Your task to perform on an android device: Empty the shopping cart on costco. Add "razer thresher" to the cart on costco, then select checkout. Image 0: 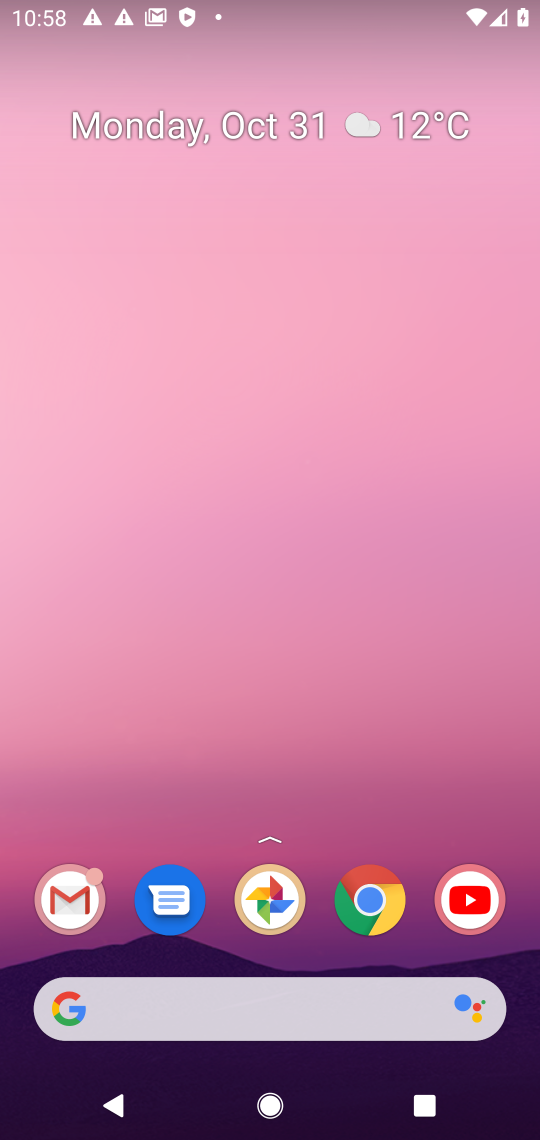
Step 0: click (189, 1019)
Your task to perform on an android device: Empty the shopping cart on costco. Add "razer thresher" to the cart on costco, then select checkout. Image 1: 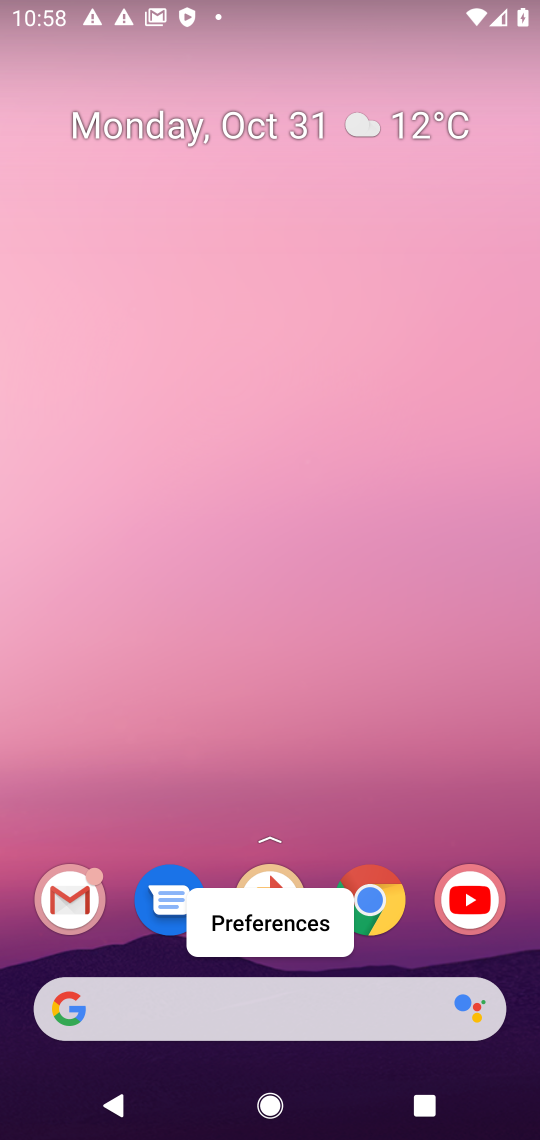
Step 1: click (176, 1016)
Your task to perform on an android device: Empty the shopping cart on costco. Add "razer thresher" to the cart on costco, then select checkout. Image 2: 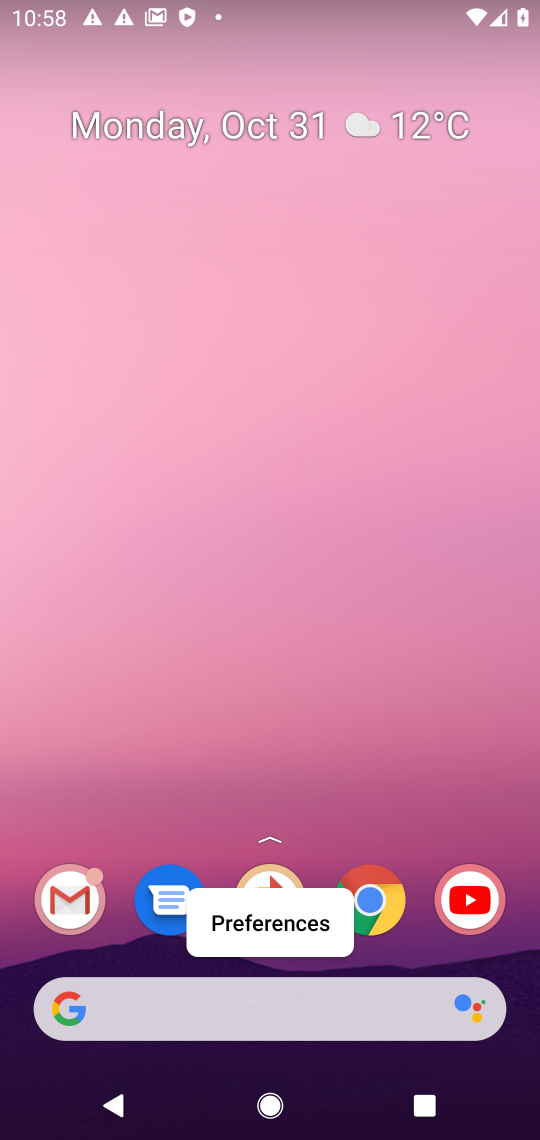
Step 2: click (175, 1006)
Your task to perform on an android device: Empty the shopping cart on costco. Add "razer thresher" to the cart on costco, then select checkout. Image 3: 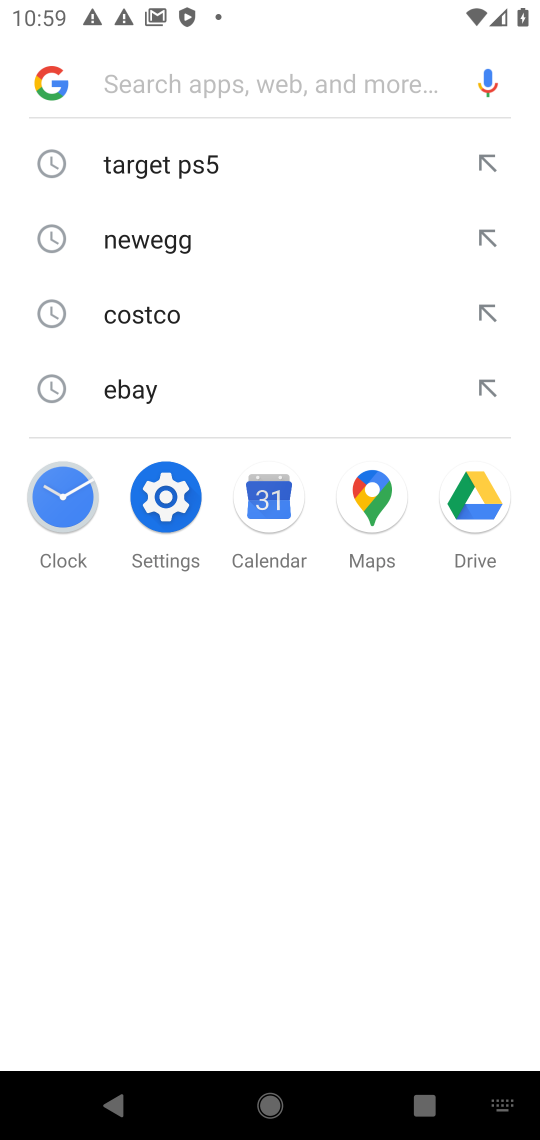
Step 3: type " costco"
Your task to perform on an android device: Empty the shopping cart on costco. Add "razer thresher" to the cart on costco, then select checkout. Image 4: 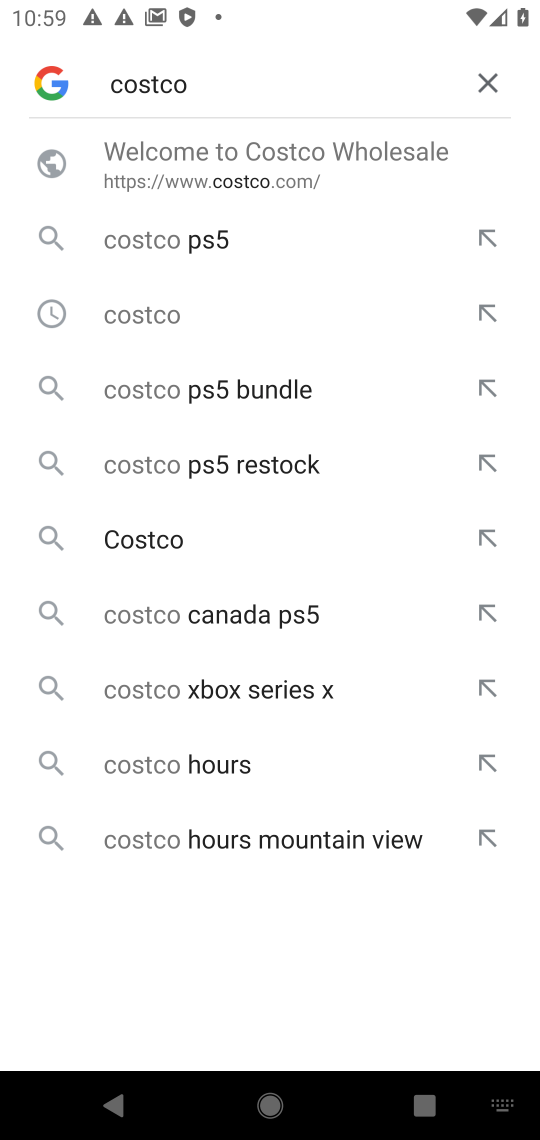
Step 4: type ""
Your task to perform on an android device: Empty the shopping cart on costco. Add "razer thresher" to the cart on costco, then select checkout. Image 5: 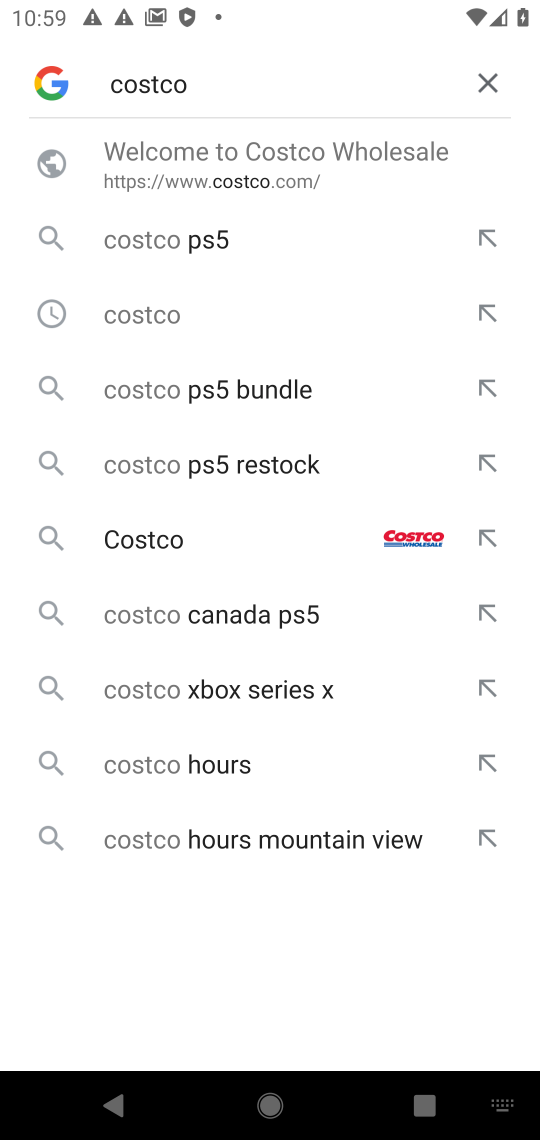
Step 5: click (173, 316)
Your task to perform on an android device: Empty the shopping cart on costco. Add "razer thresher" to the cart on costco, then select checkout. Image 6: 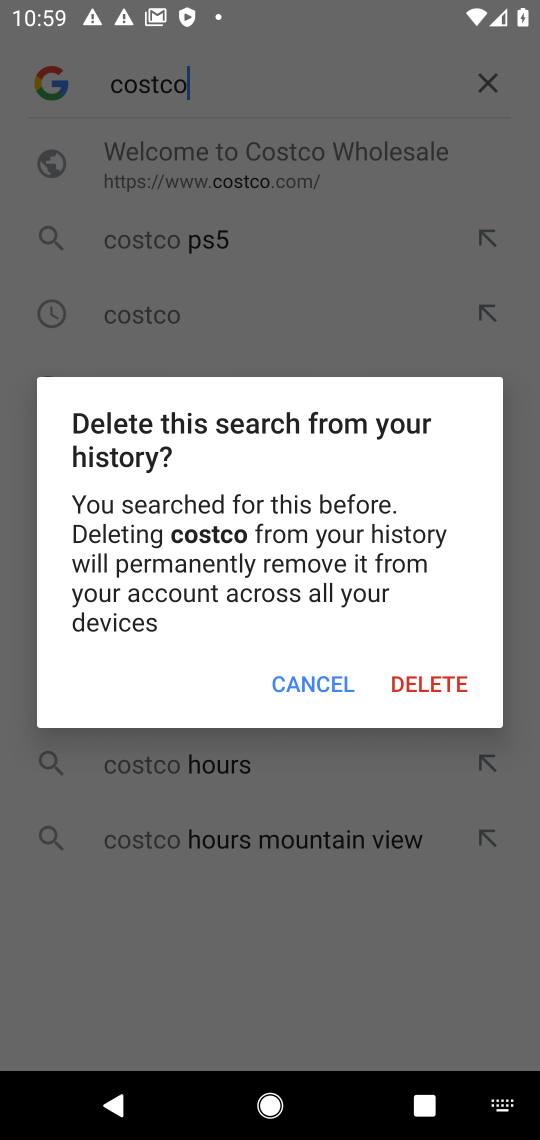
Step 6: click (301, 672)
Your task to perform on an android device: Empty the shopping cart on costco. Add "razer thresher" to the cart on costco, then select checkout. Image 7: 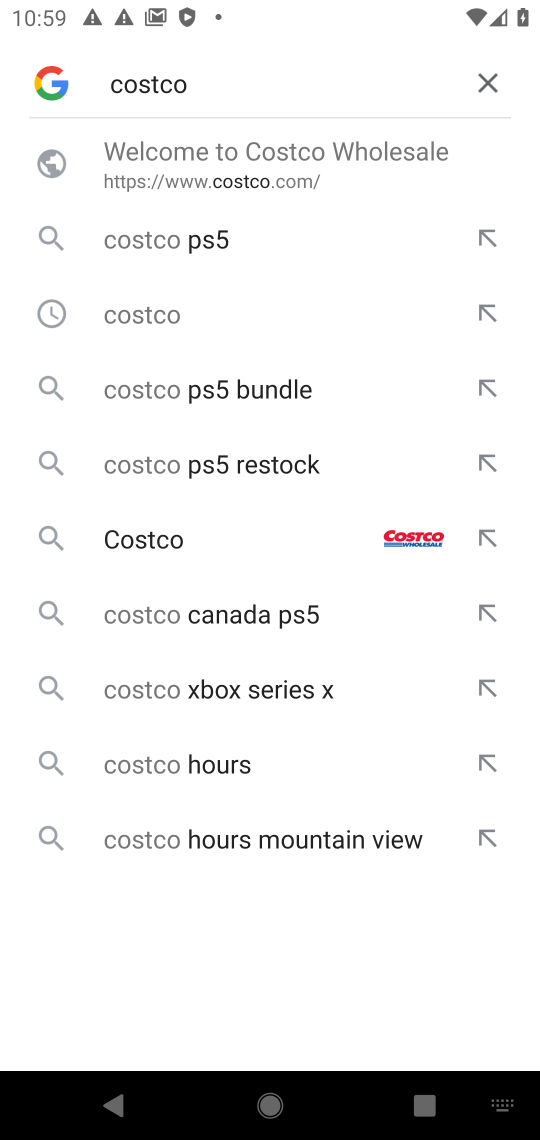
Step 7: click (306, 683)
Your task to perform on an android device: Empty the shopping cart on costco. Add "razer thresher" to the cart on costco, then select checkout. Image 8: 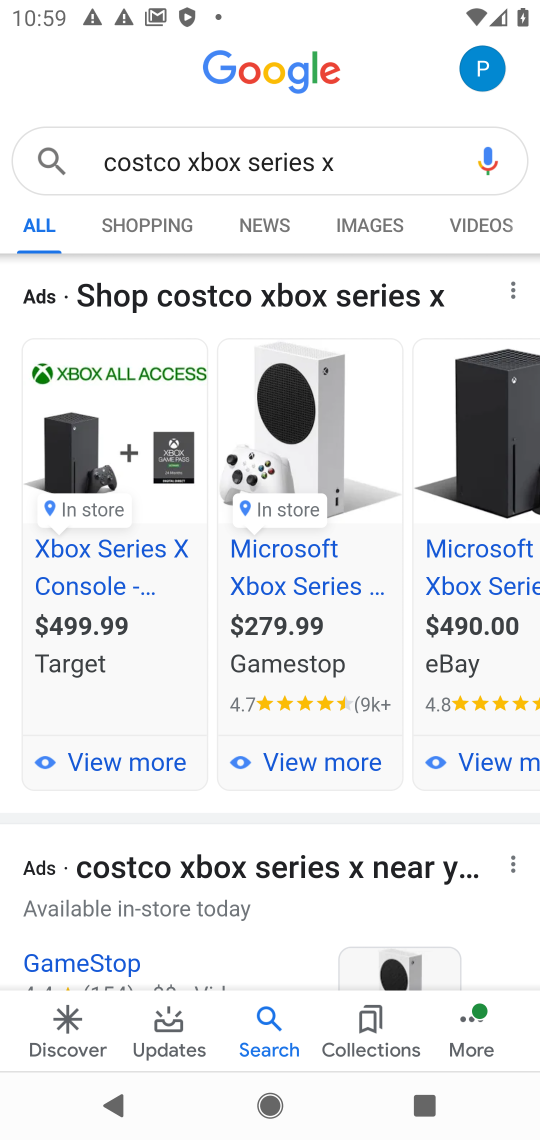
Step 8: drag from (255, 482) to (255, 266)
Your task to perform on an android device: Empty the shopping cart on costco. Add "razer thresher" to the cart on costco, then select checkout. Image 9: 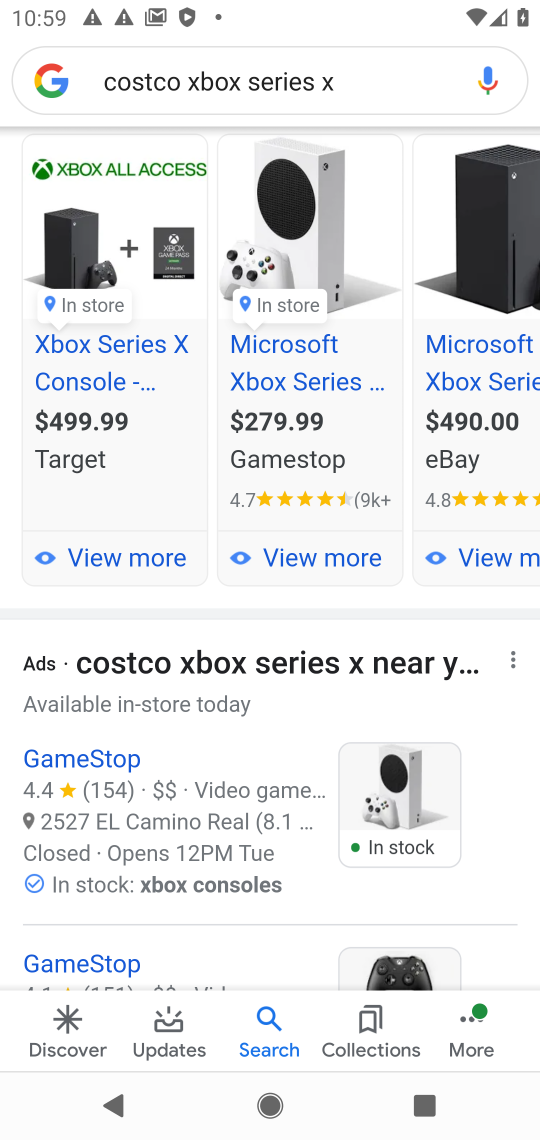
Step 9: drag from (234, 738) to (284, 212)
Your task to perform on an android device: Empty the shopping cart on costco. Add "razer thresher" to the cart on costco, then select checkout. Image 10: 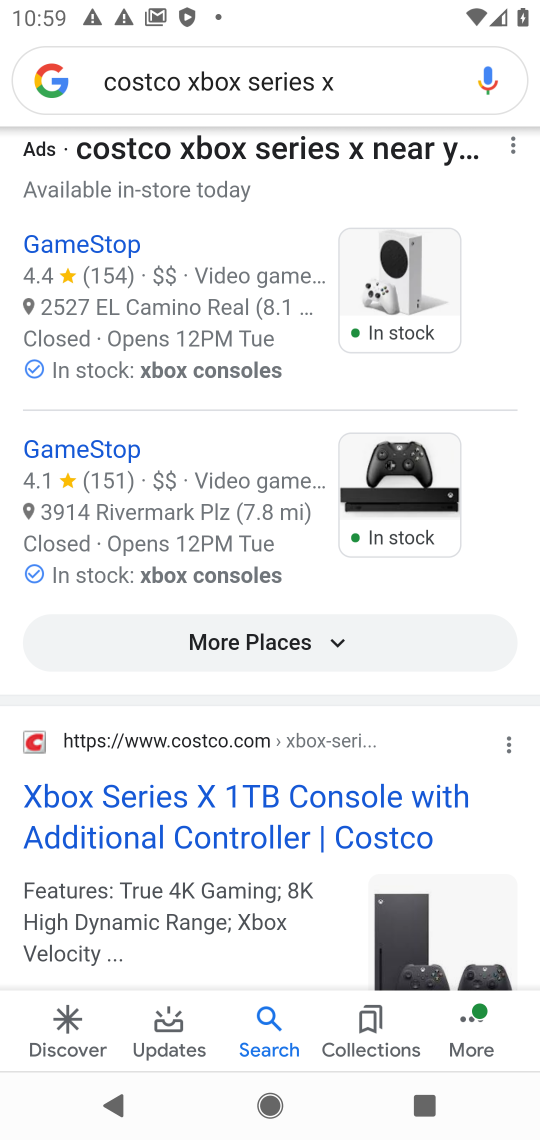
Step 10: click (198, 769)
Your task to perform on an android device: Empty the shopping cart on costco. Add "razer thresher" to the cart on costco, then select checkout. Image 11: 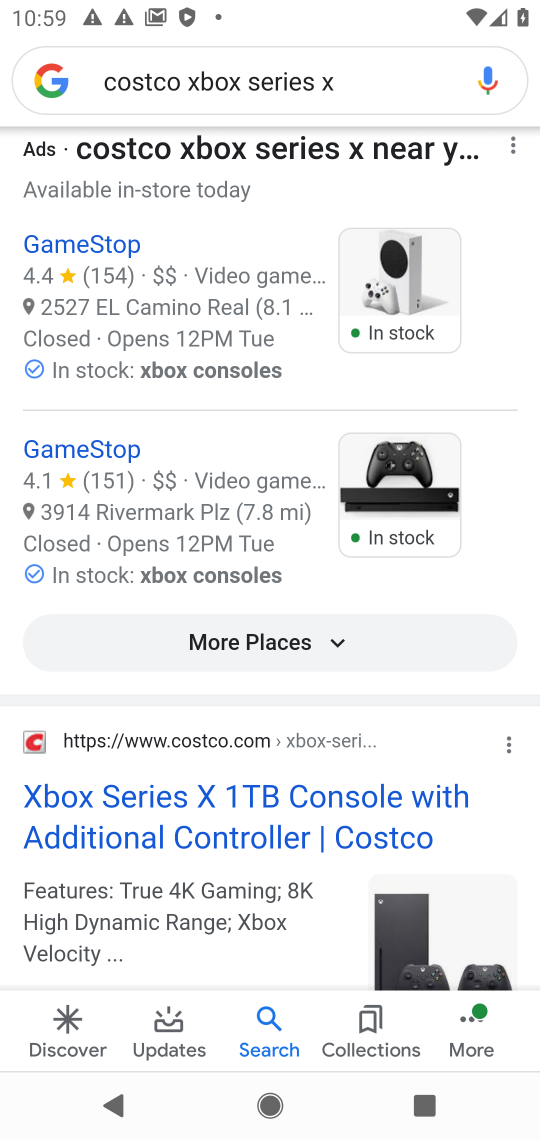
Step 11: click (205, 748)
Your task to perform on an android device: Empty the shopping cart on costco. Add "razer thresher" to the cart on costco, then select checkout. Image 12: 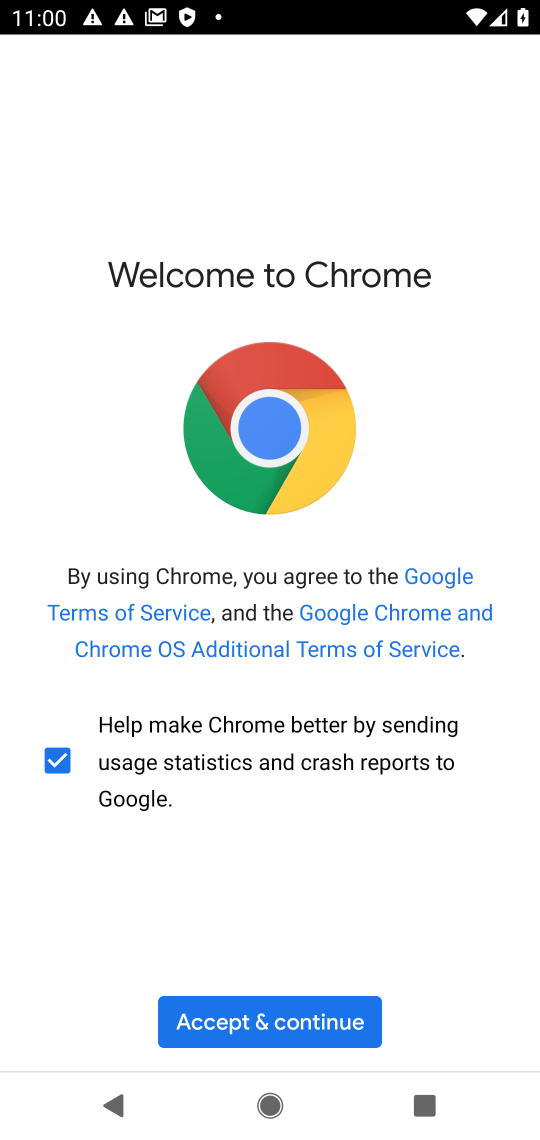
Step 12: click (241, 1015)
Your task to perform on an android device: Empty the shopping cart on costco. Add "razer thresher" to the cart on costco, then select checkout. Image 13: 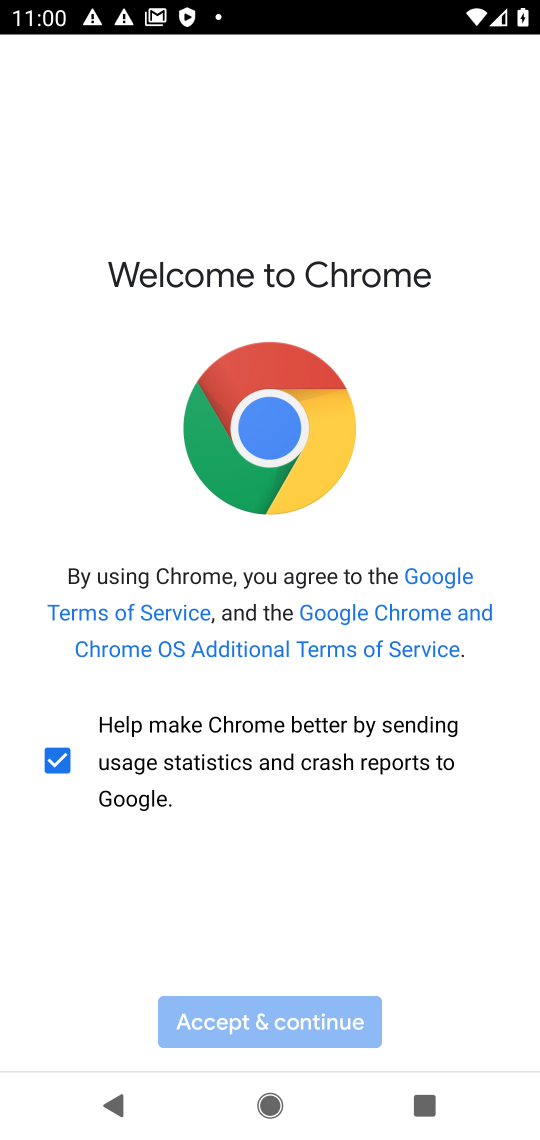
Step 13: click (239, 1016)
Your task to perform on an android device: Empty the shopping cart on costco. Add "razer thresher" to the cart on costco, then select checkout. Image 14: 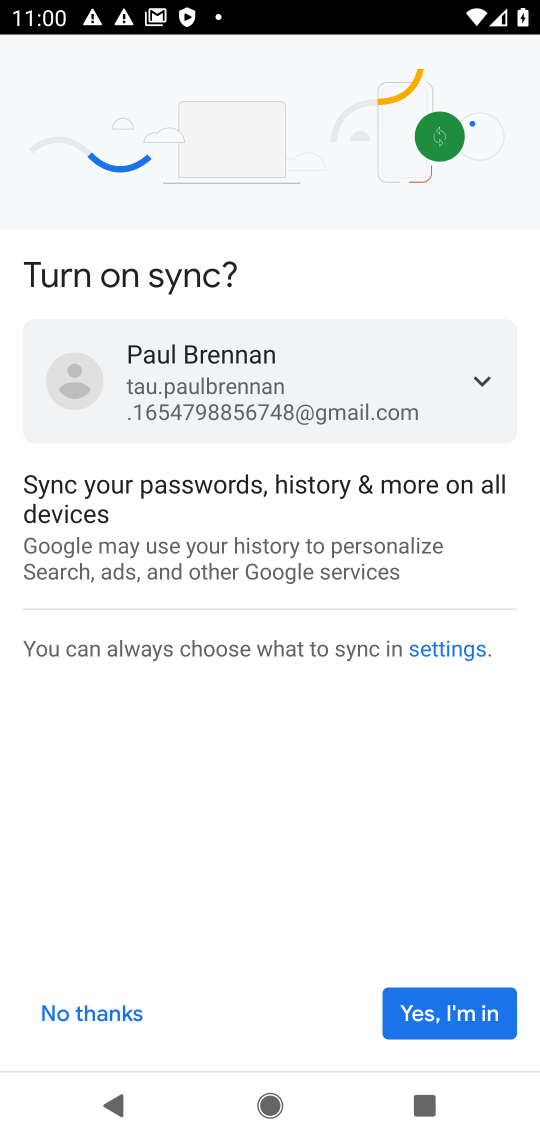
Step 14: click (401, 1027)
Your task to perform on an android device: Empty the shopping cart on costco. Add "razer thresher" to the cart on costco, then select checkout. Image 15: 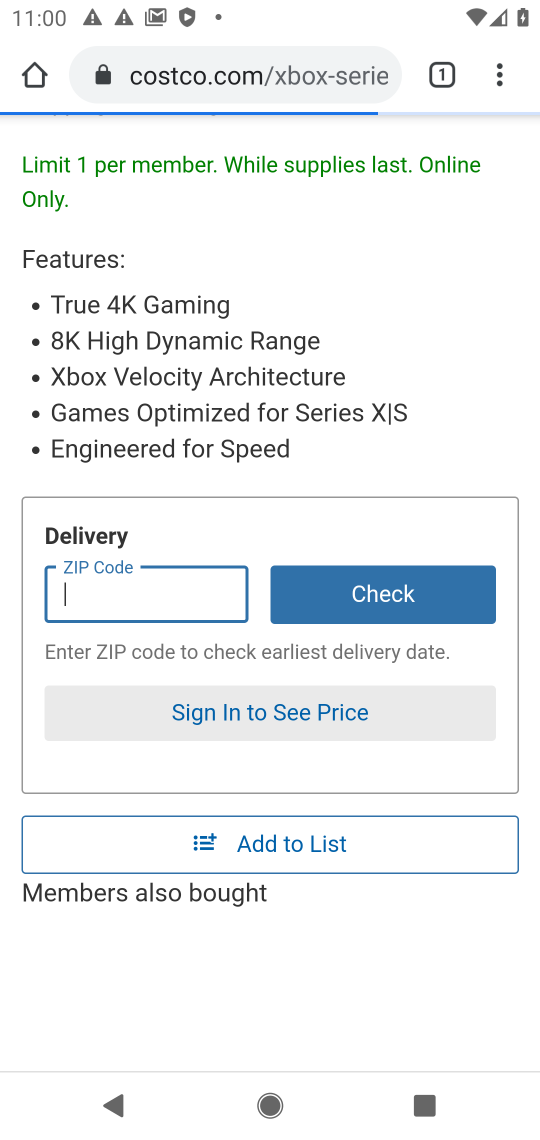
Step 15: click (223, 229)
Your task to perform on an android device: Empty the shopping cart on costco. Add "razer thresher" to the cart on costco, then select checkout. Image 16: 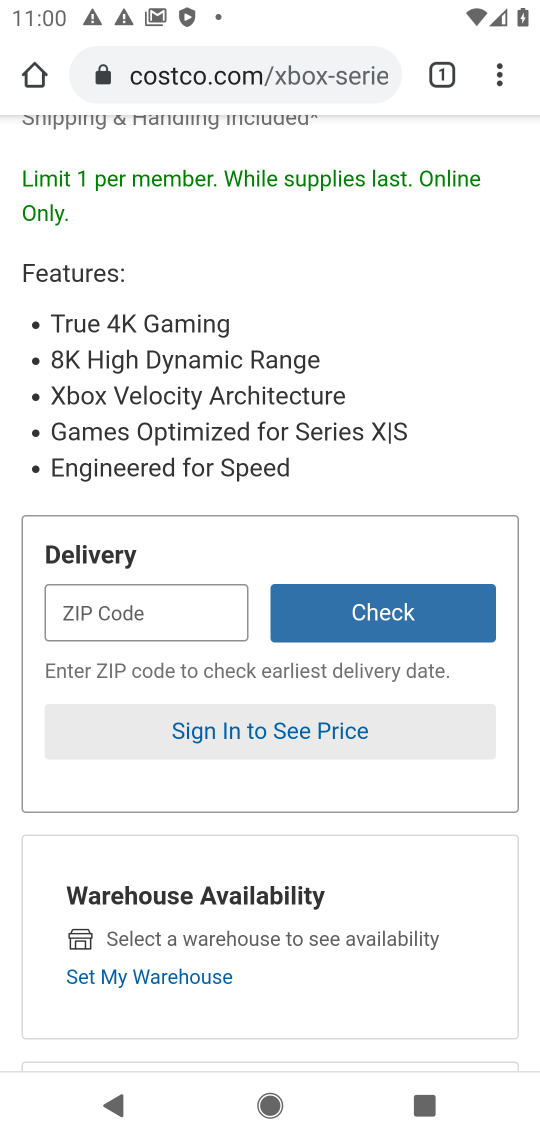
Step 16: drag from (345, 299) to (409, 951)
Your task to perform on an android device: Empty the shopping cart on costco. Add "razer thresher" to the cart on costco, then select checkout. Image 17: 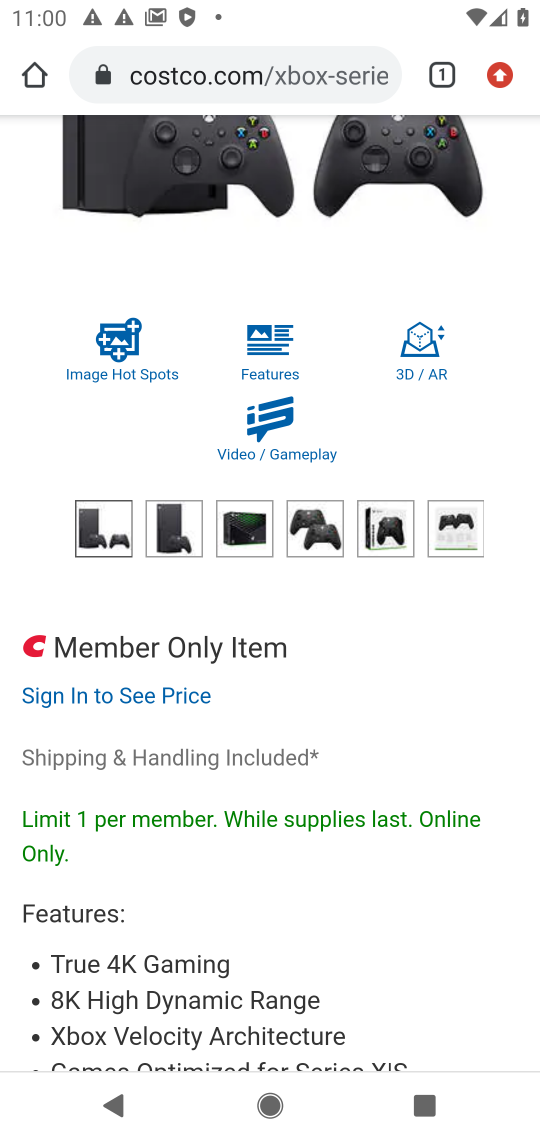
Step 17: drag from (301, 370) to (406, 1014)
Your task to perform on an android device: Empty the shopping cart on costco. Add "razer thresher" to the cart on costco, then select checkout. Image 18: 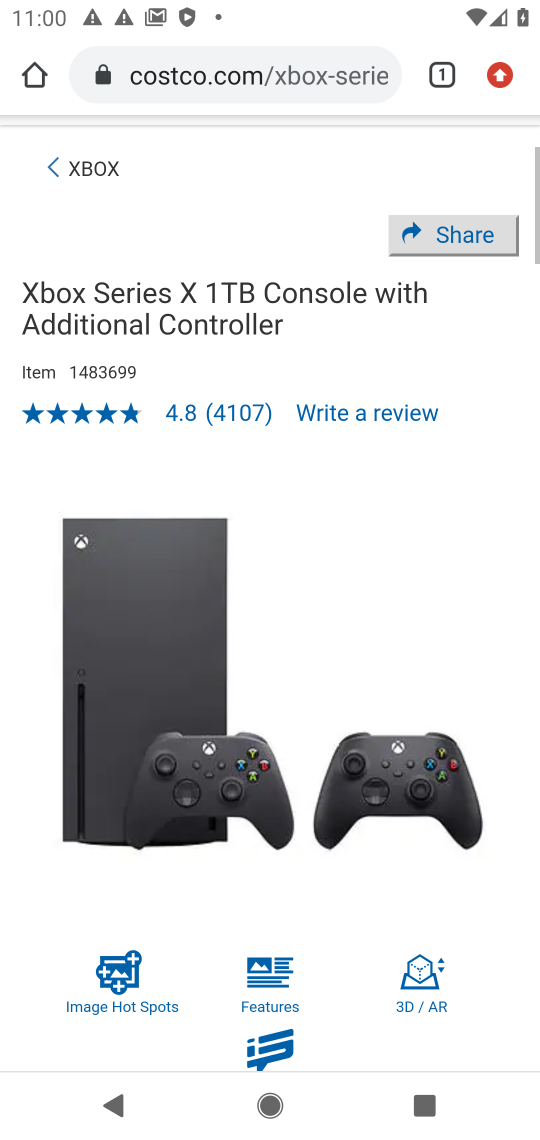
Step 18: drag from (318, 272) to (353, 646)
Your task to perform on an android device: Empty the shopping cart on costco. Add "razer thresher" to the cart on costco, then select checkout. Image 19: 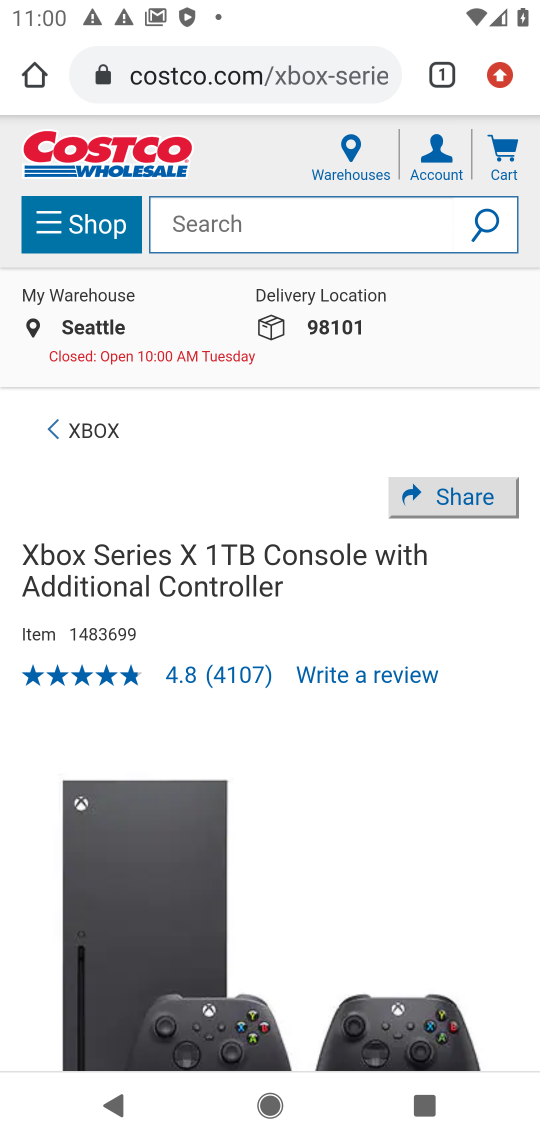
Step 19: click (258, 212)
Your task to perform on an android device: Empty the shopping cart on costco. Add "razer thresher" to the cart on costco, then select checkout. Image 20: 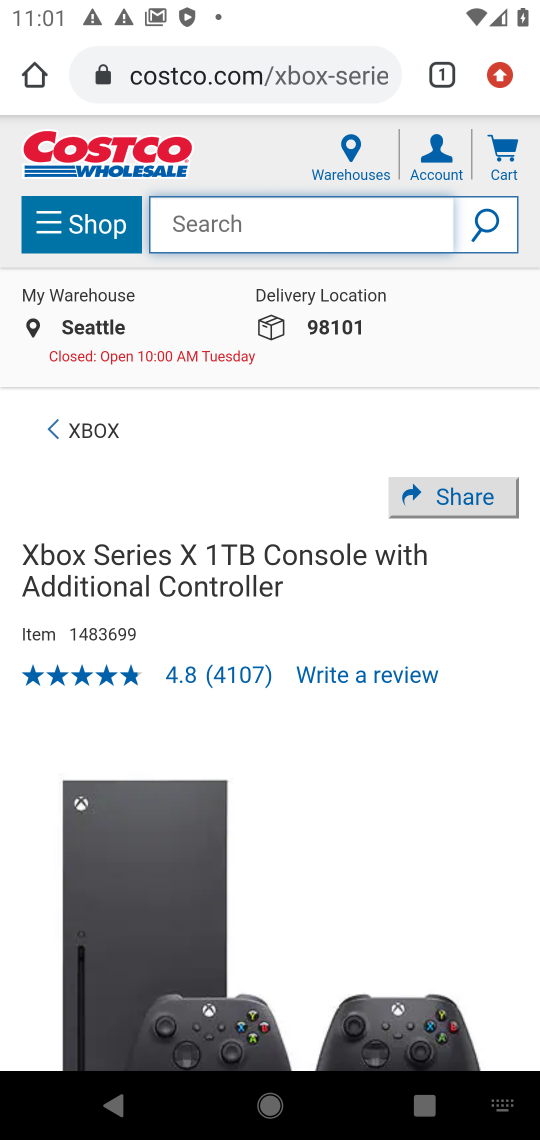
Step 20: type "razer thresher"
Your task to perform on an android device: Empty the shopping cart on costco. Add "razer thresher" to the cart on costco, then select checkout. Image 21: 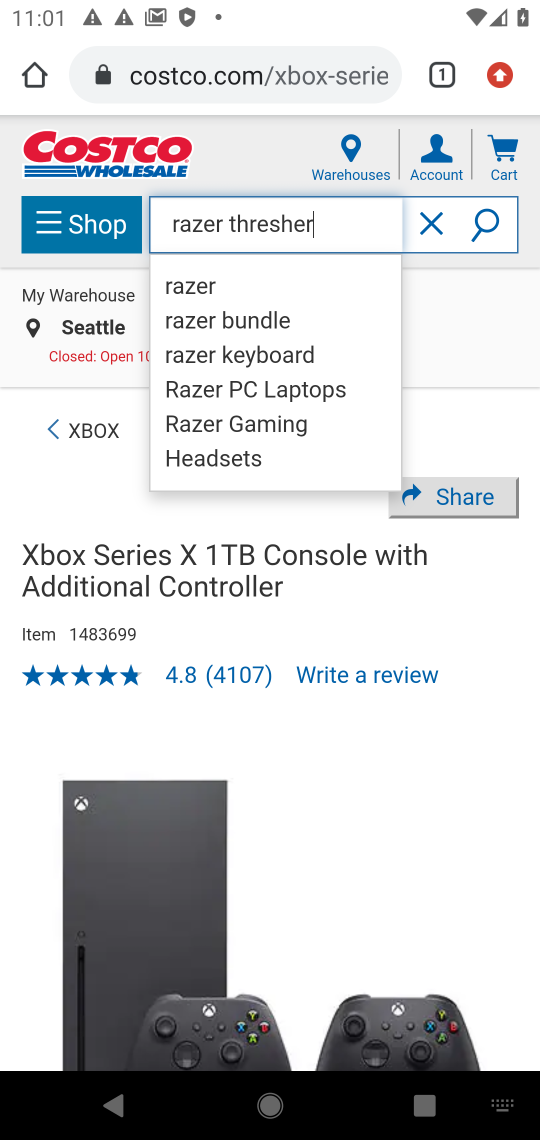
Step 21: press enter
Your task to perform on an android device: Empty the shopping cart on costco. Add "razer thresher" to the cart on costco, then select checkout. Image 22: 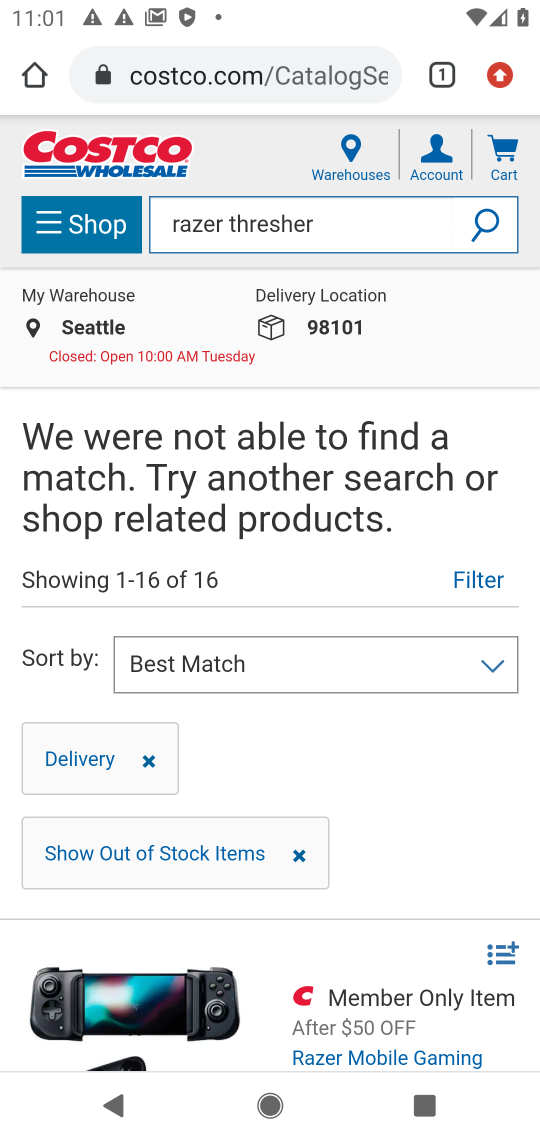
Step 22: drag from (393, 748) to (362, 396)
Your task to perform on an android device: Empty the shopping cart on costco. Add "razer thresher" to the cart on costco, then select checkout. Image 23: 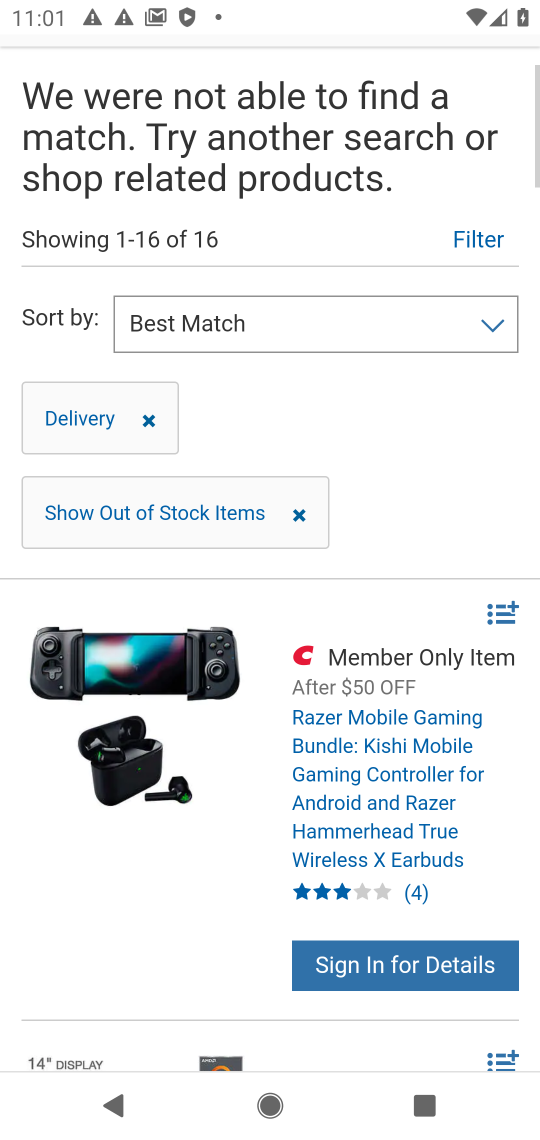
Step 23: drag from (406, 631) to (399, 463)
Your task to perform on an android device: Empty the shopping cart on costco. Add "razer thresher" to the cart on costco, then select checkout. Image 24: 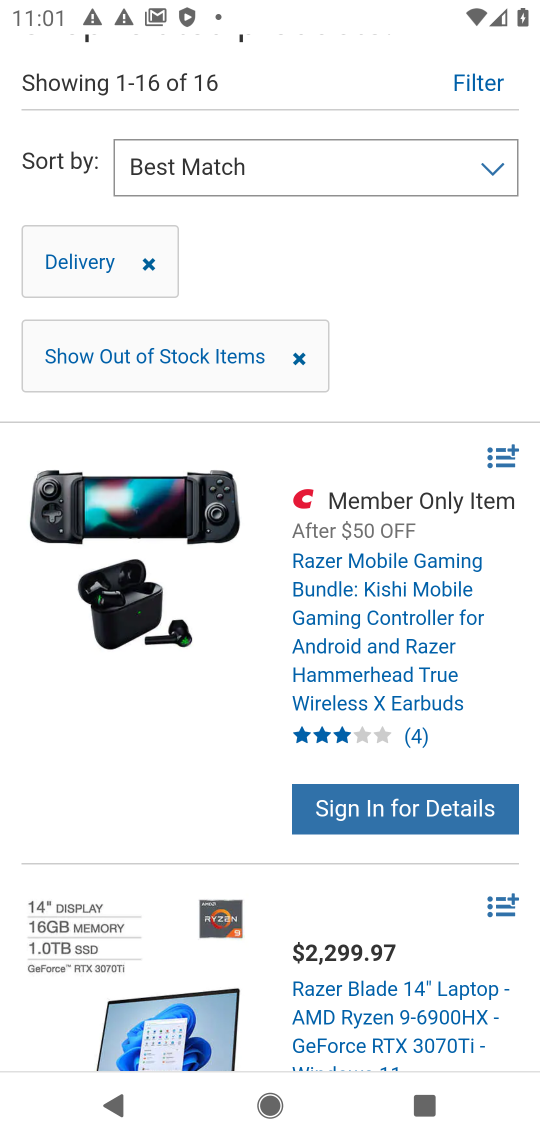
Step 24: click (373, 595)
Your task to perform on an android device: Empty the shopping cart on costco. Add "razer thresher" to the cart on costco, then select checkout. Image 25: 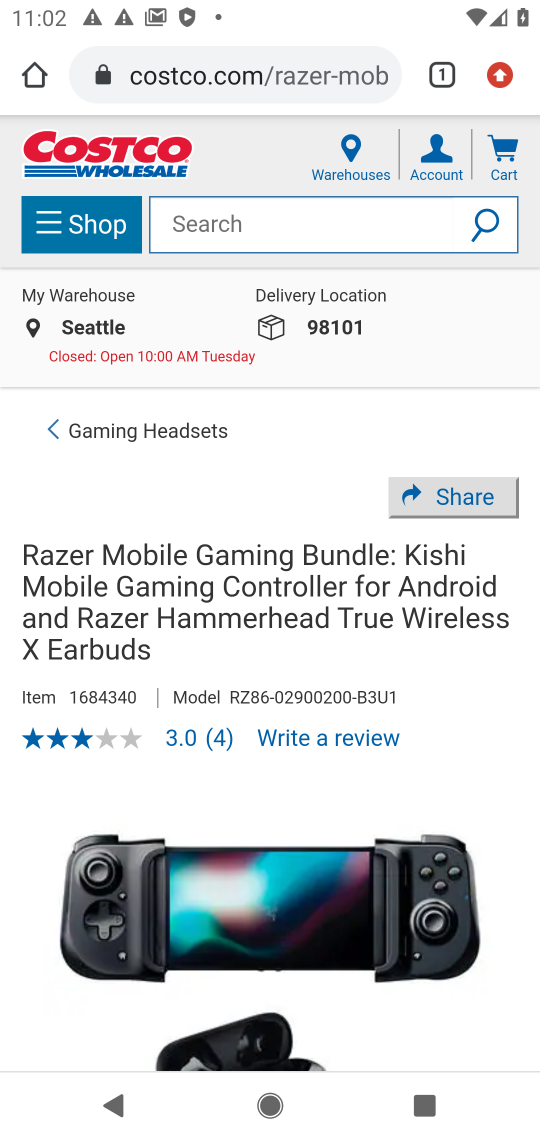
Step 25: click (271, 226)
Your task to perform on an android device: Empty the shopping cart on costco. Add "razer thresher" to the cart on costco, then select checkout. Image 26: 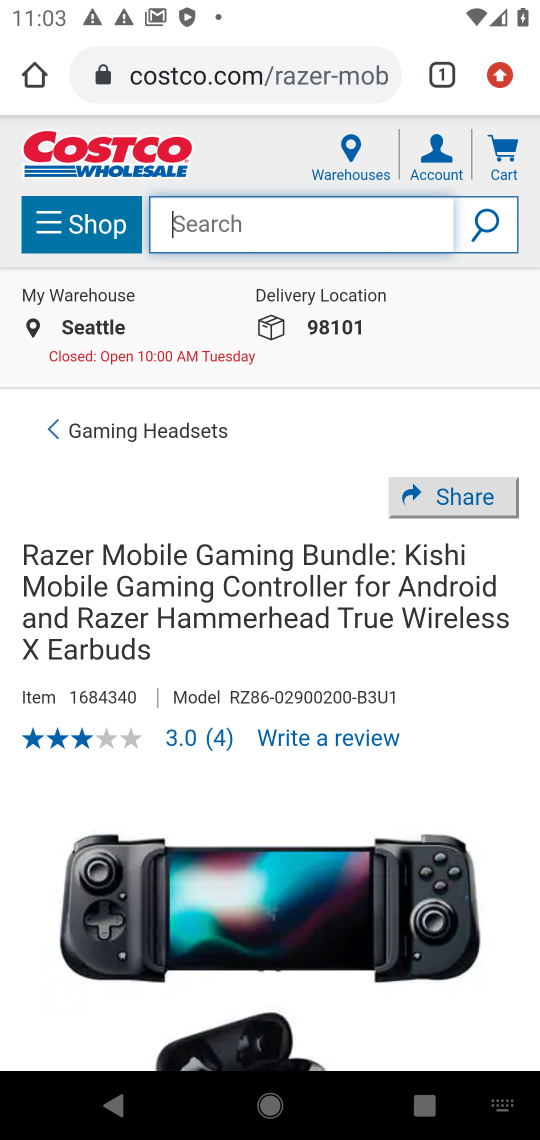
Step 26: type "razer threshe"
Your task to perform on an android device: Empty the shopping cart on costco. Add "razer thresher" to the cart on costco, then select checkout. Image 27: 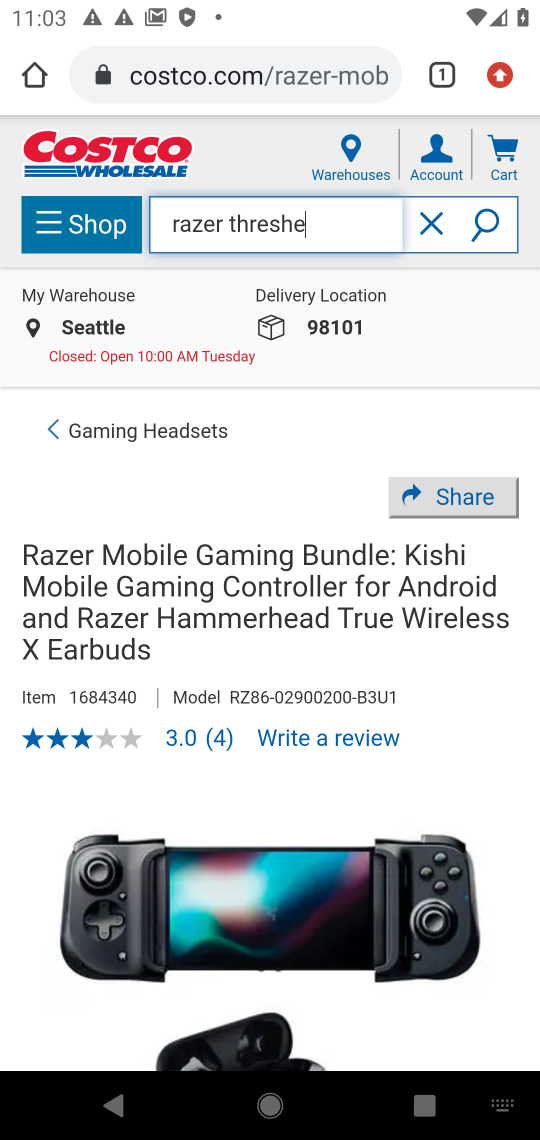
Step 27: type ""
Your task to perform on an android device: Empty the shopping cart on costco. Add "razer thresher" to the cart on costco, then select checkout. Image 28: 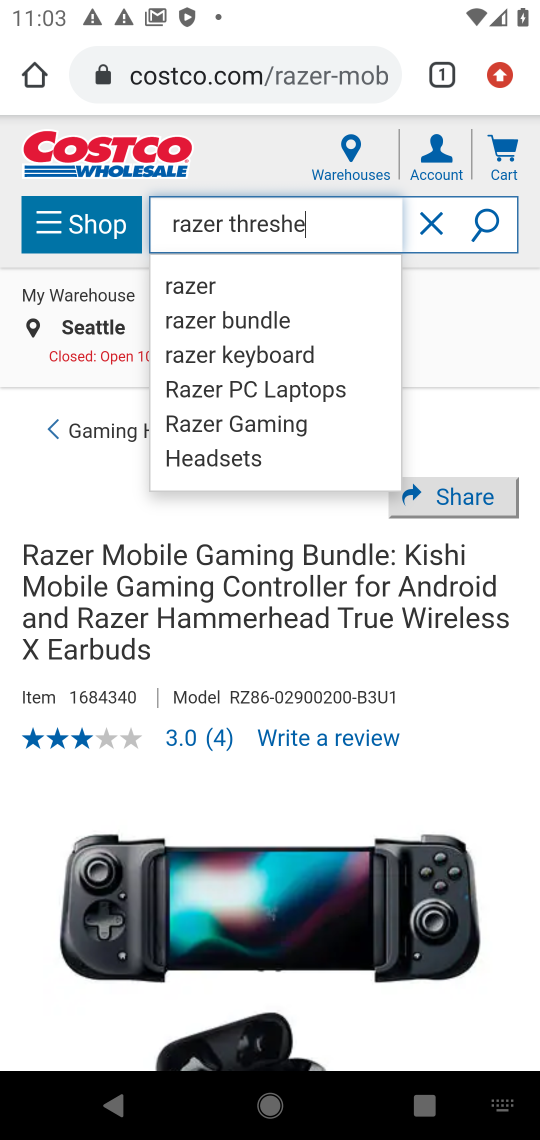
Step 28: press enter
Your task to perform on an android device: Empty the shopping cart on costco. Add "razer thresher" to the cart on costco, then select checkout. Image 29: 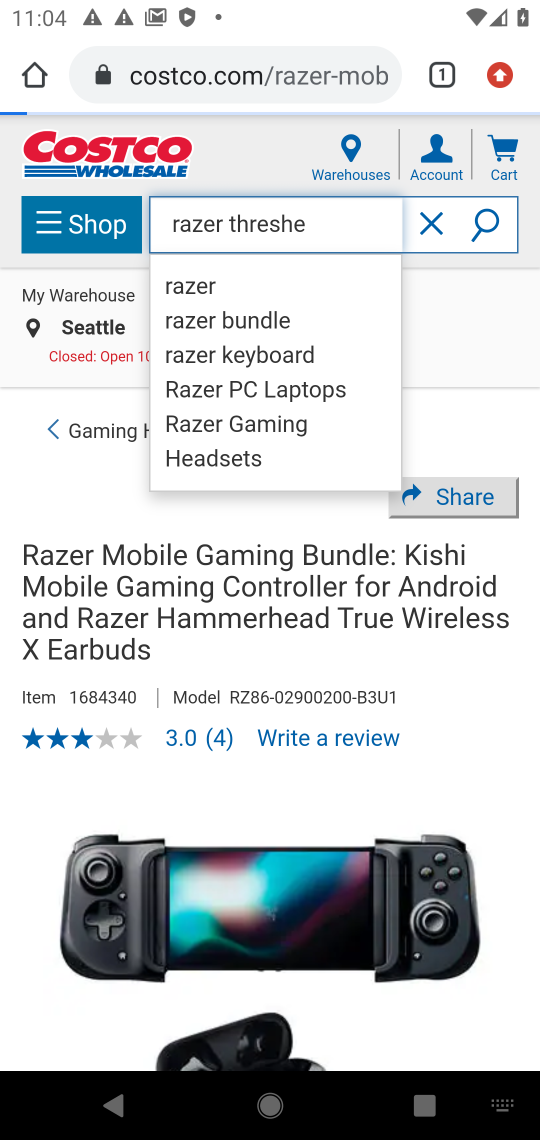
Step 29: type ""
Your task to perform on an android device: Empty the shopping cart on costco. Add "razer thresher" to the cart on costco, then select checkout. Image 30: 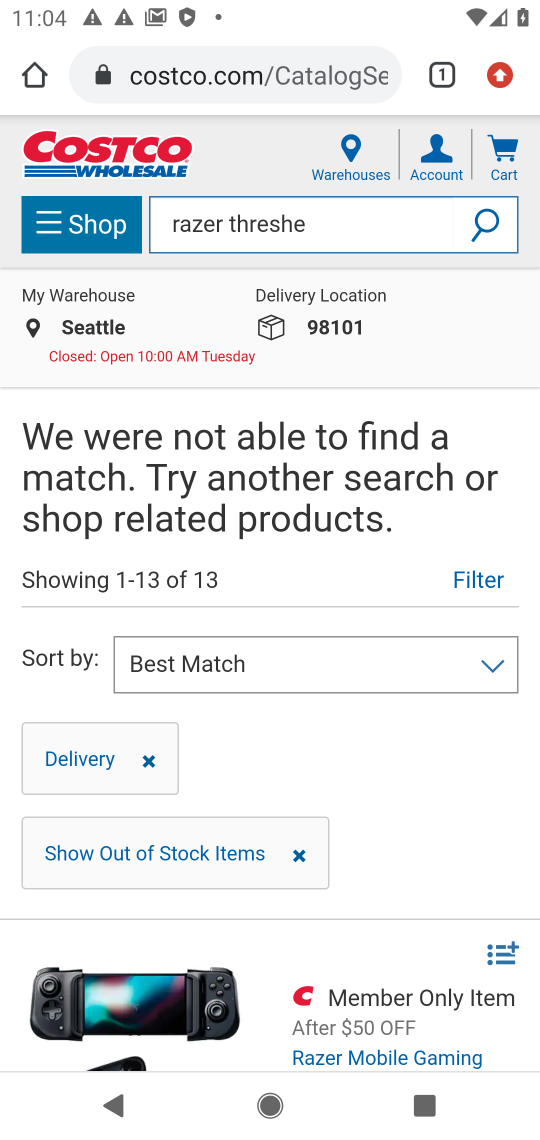
Step 30: task complete